Your task to perform on an android device: View the shopping cart on amazon.com. Search for "logitech g903" on amazon.com, select the first entry, add it to the cart, then select checkout. Image 0: 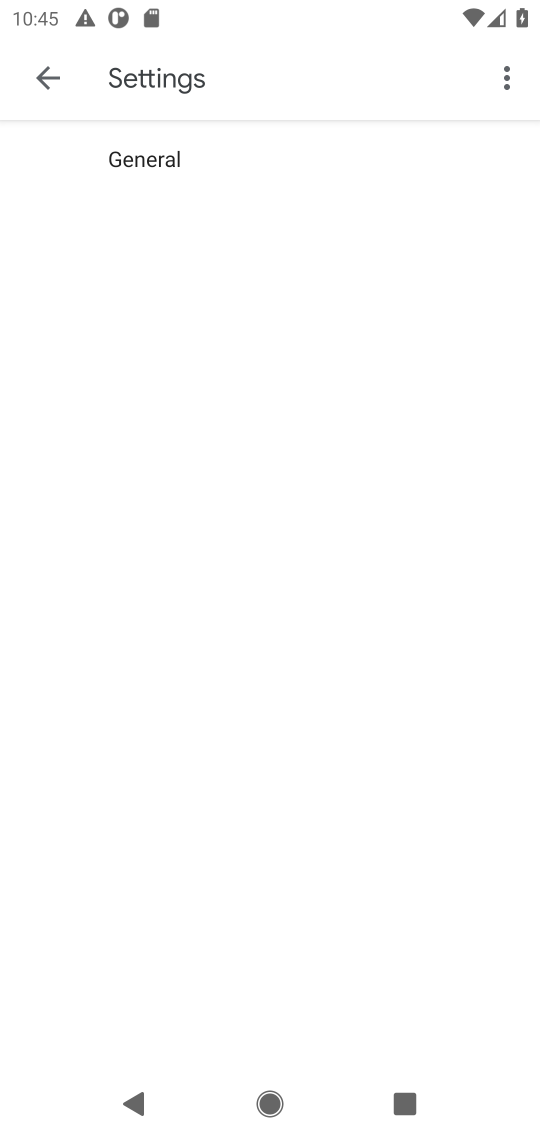
Step 0: press home button
Your task to perform on an android device: View the shopping cart on amazon.com. Search for "logitech g903" on amazon.com, select the first entry, add it to the cart, then select checkout. Image 1: 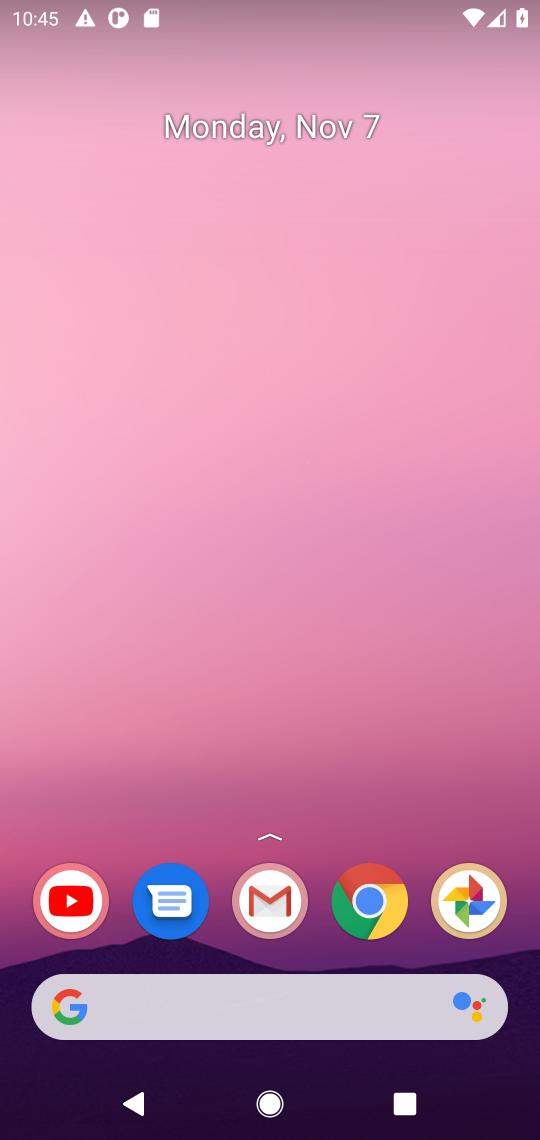
Step 1: click (367, 902)
Your task to perform on an android device: View the shopping cart on amazon.com. Search for "logitech g903" on amazon.com, select the first entry, add it to the cart, then select checkout. Image 2: 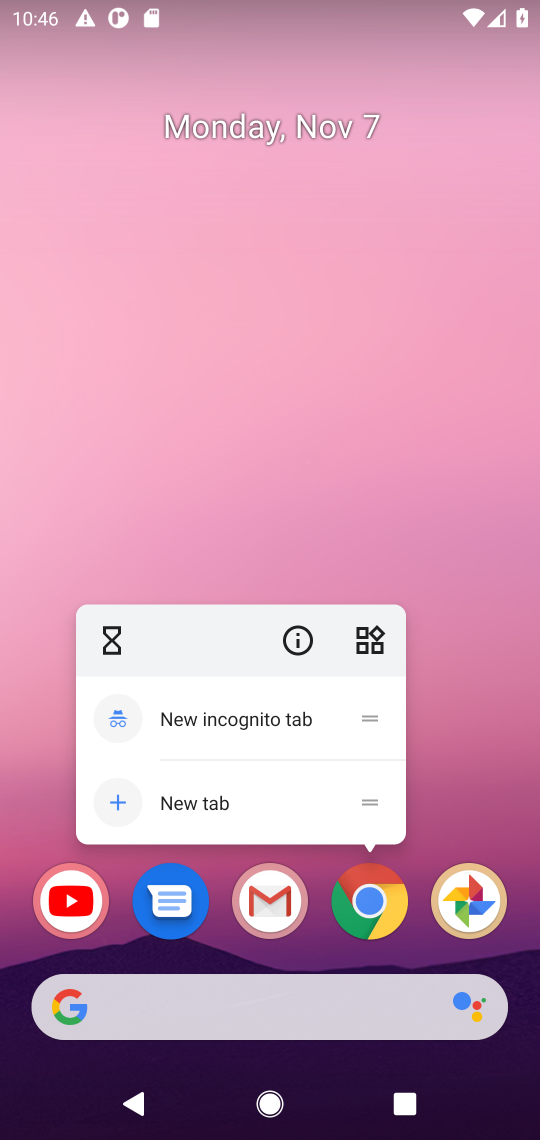
Step 2: click (367, 902)
Your task to perform on an android device: View the shopping cart on amazon.com. Search for "logitech g903" on amazon.com, select the first entry, add it to the cart, then select checkout. Image 3: 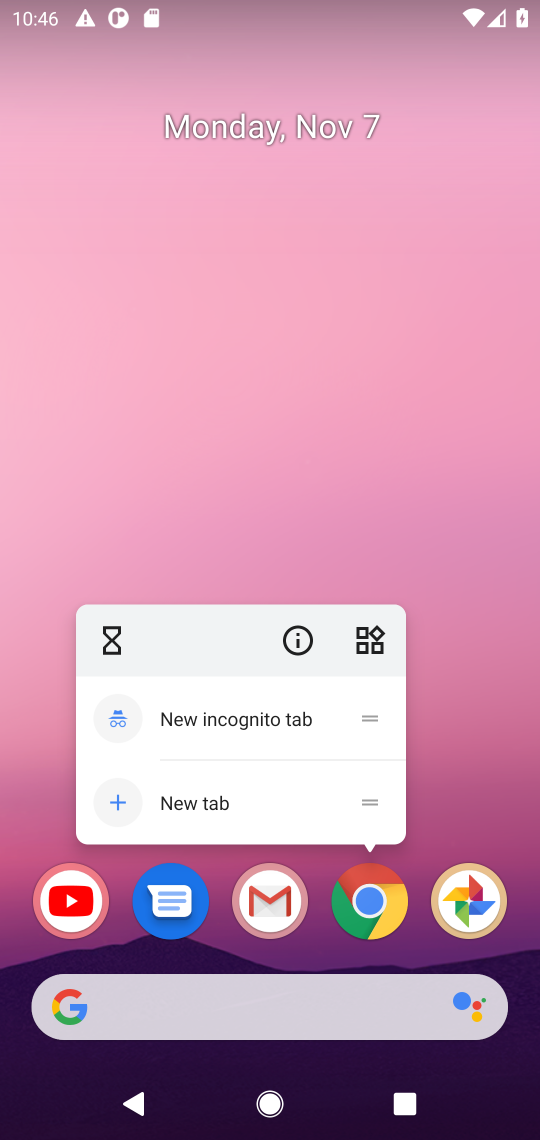
Step 3: click (367, 902)
Your task to perform on an android device: View the shopping cart on amazon.com. Search for "logitech g903" on amazon.com, select the first entry, add it to the cart, then select checkout. Image 4: 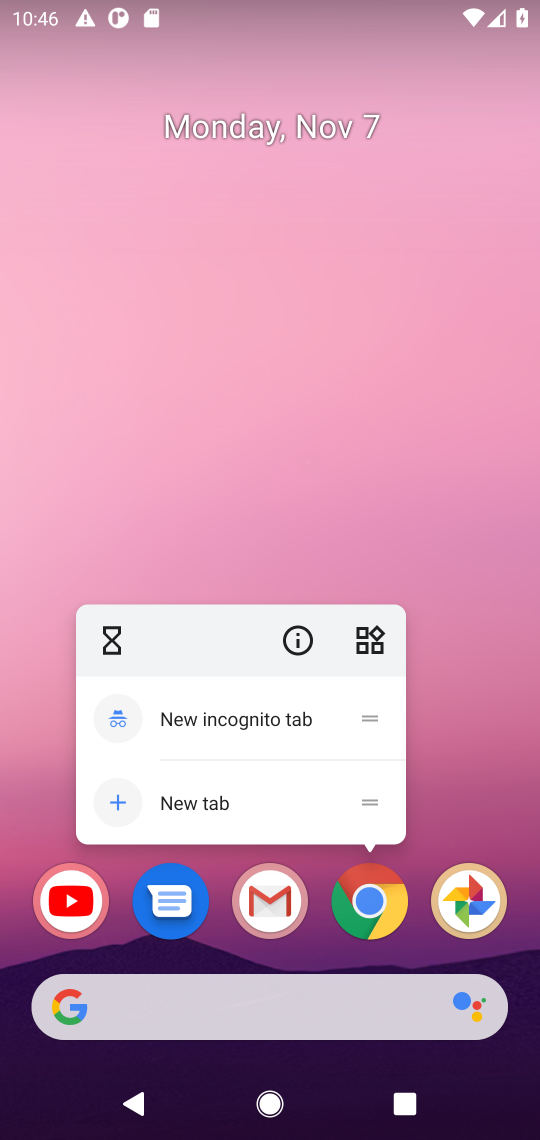
Step 4: click (367, 902)
Your task to perform on an android device: View the shopping cart on amazon.com. Search for "logitech g903" on amazon.com, select the first entry, add it to the cart, then select checkout. Image 5: 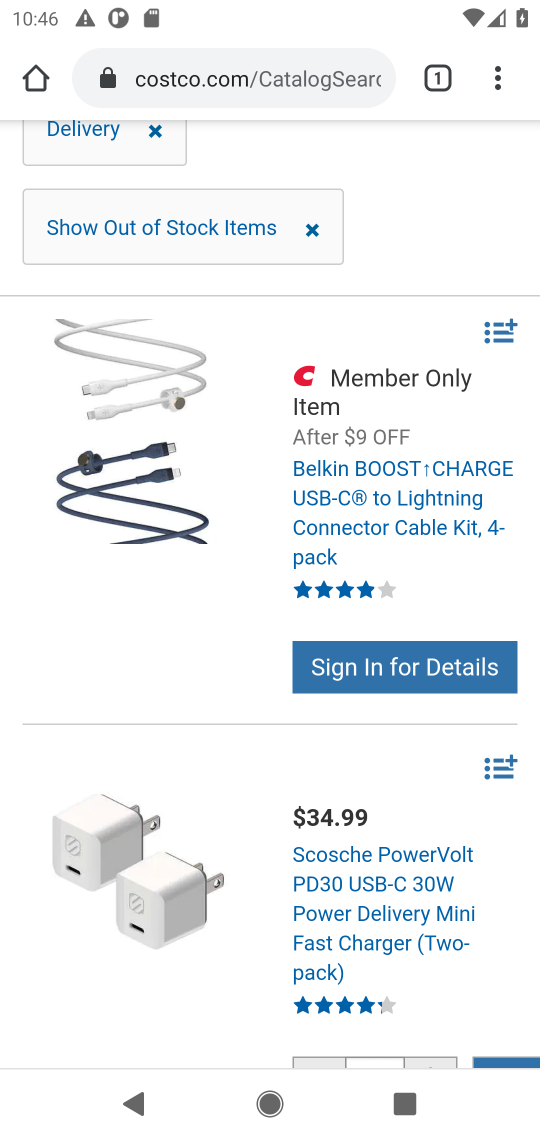
Step 5: click (237, 72)
Your task to perform on an android device: View the shopping cart on amazon.com. Search for "logitech g903" on amazon.com, select the first entry, add it to the cart, then select checkout. Image 6: 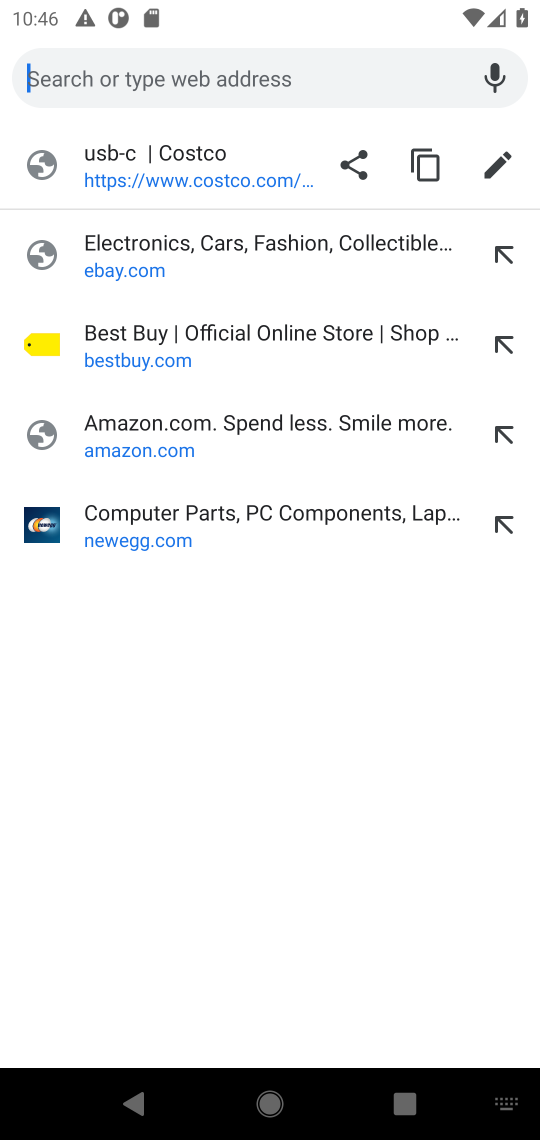
Step 6: click (267, 443)
Your task to perform on an android device: View the shopping cart on amazon.com. Search for "logitech g903" on amazon.com, select the first entry, add it to the cart, then select checkout. Image 7: 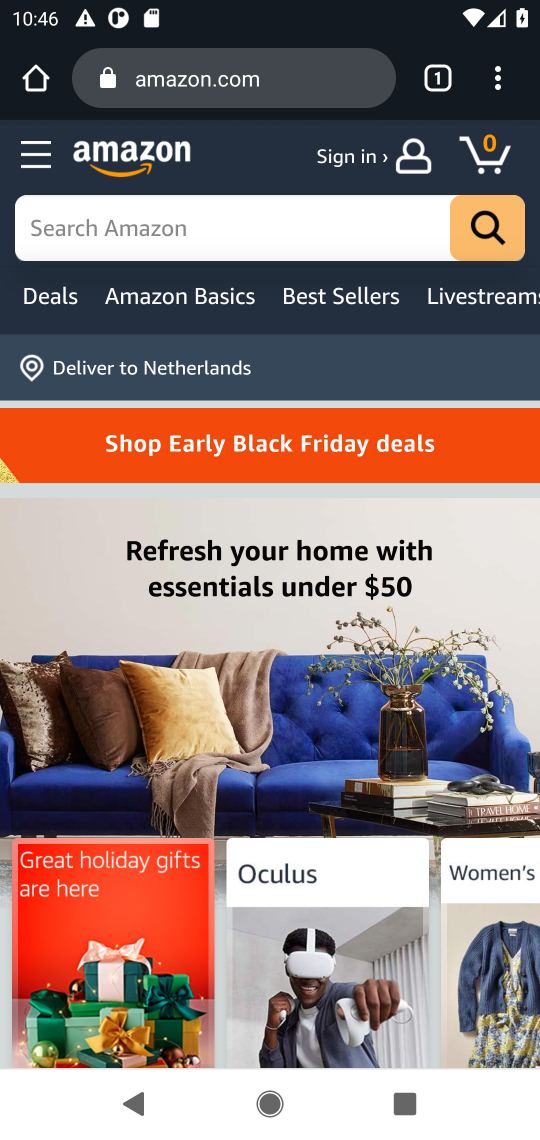
Step 7: click (234, 246)
Your task to perform on an android device: View the shopping cart on amazon.com. Search for "logitech g903" on amazon.com, select the first entry, add it to the cart, then select checkout. Image 8: 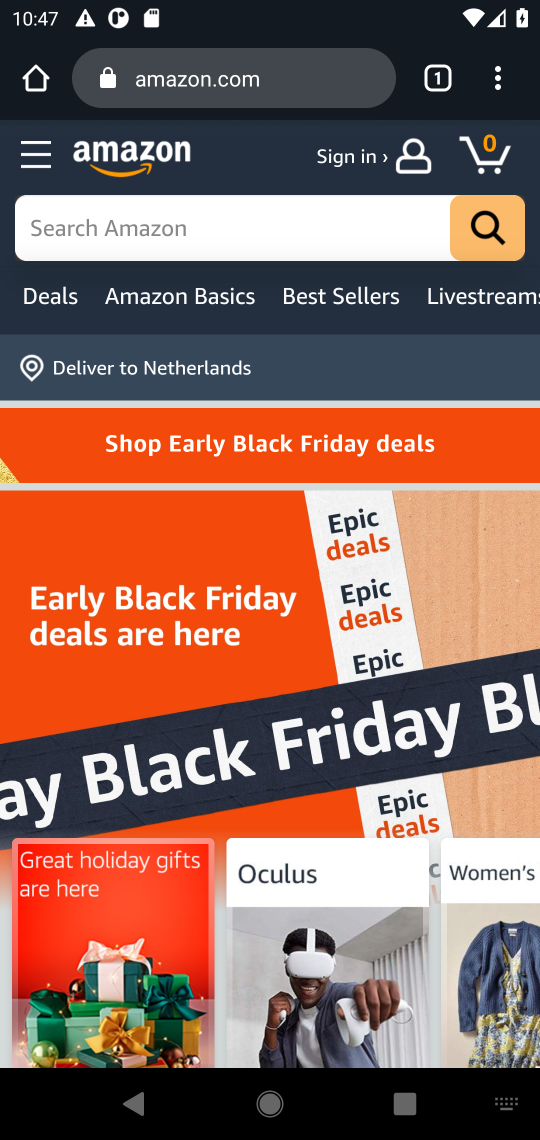
Step 8: type "logitecch g903"
Your task to perform on an android device: View the shopping cart on amazon.com. Search for "logitech g903" on amazon.com, select the first entry, add it to the cart, then select checkout. Image 9: 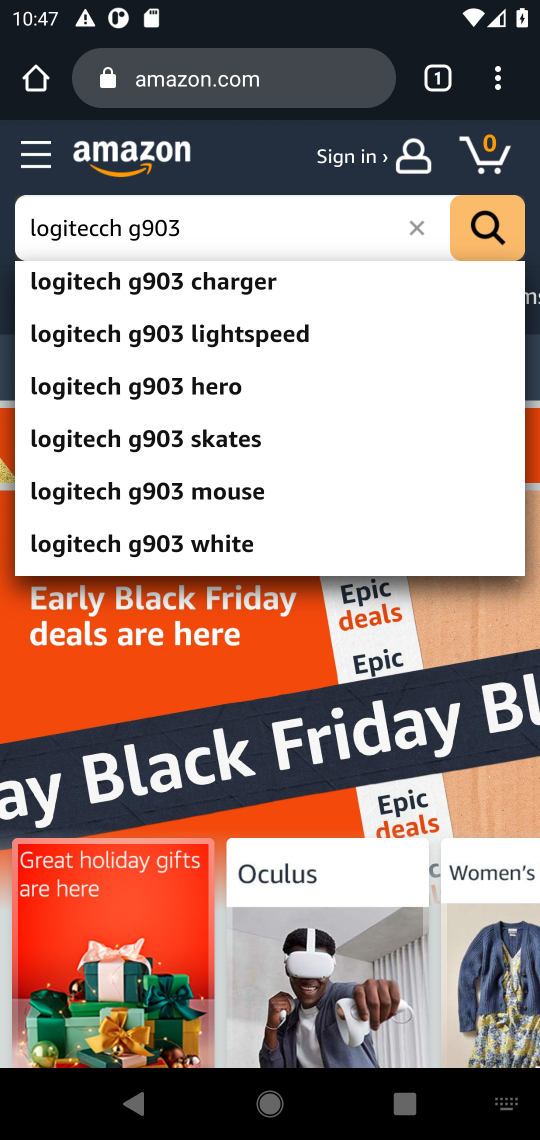
Step 9: press enter
Your task to perform on an android device: View the shopping cart on amazon.com. Search for "logitech g903" on amazon.com, select the first entry, add it to the cart, then select checkout. Image 10: 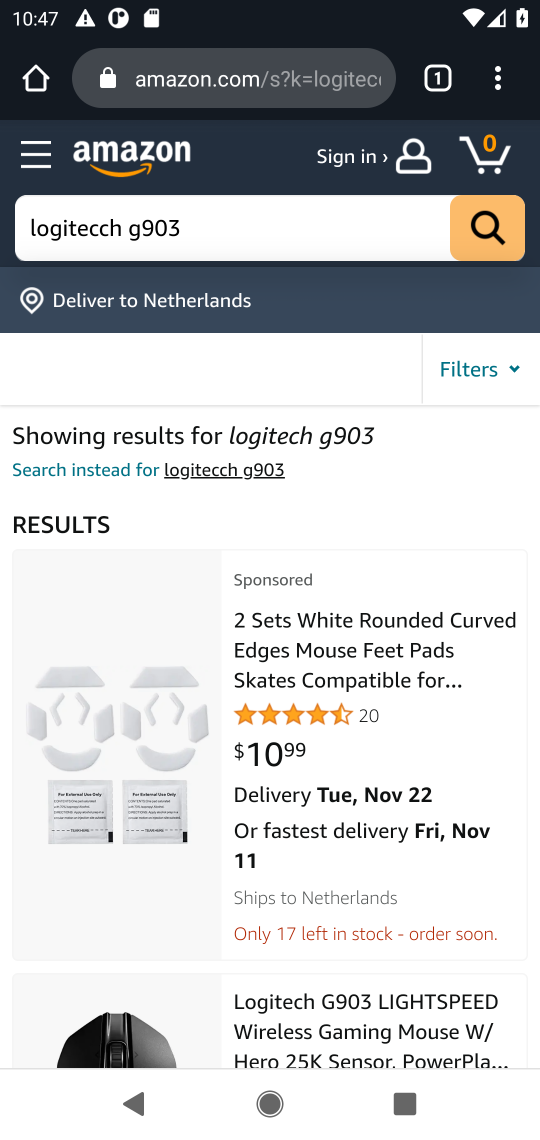
Step 10: drag from (277, 911) to (208, 714)
Your task to perform on an android device: View the shopping cart on amazon.com. Search for "logitech g903" on amazon.com, select the first entry, add it to the cart, then select checkout. Image 11: 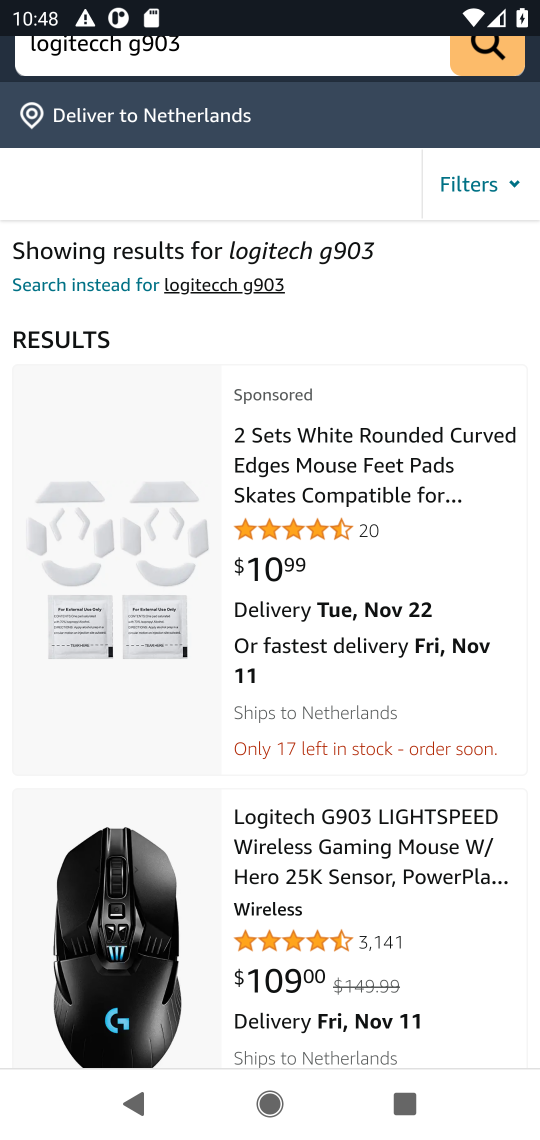
Step 11: click (182, 894)
Your task to perform on an android device: View the shopping cart on amazon.com. Search for "logitech g903" on amazon.com, select the first entry, add it to the cart, then select checkout. Image 12: 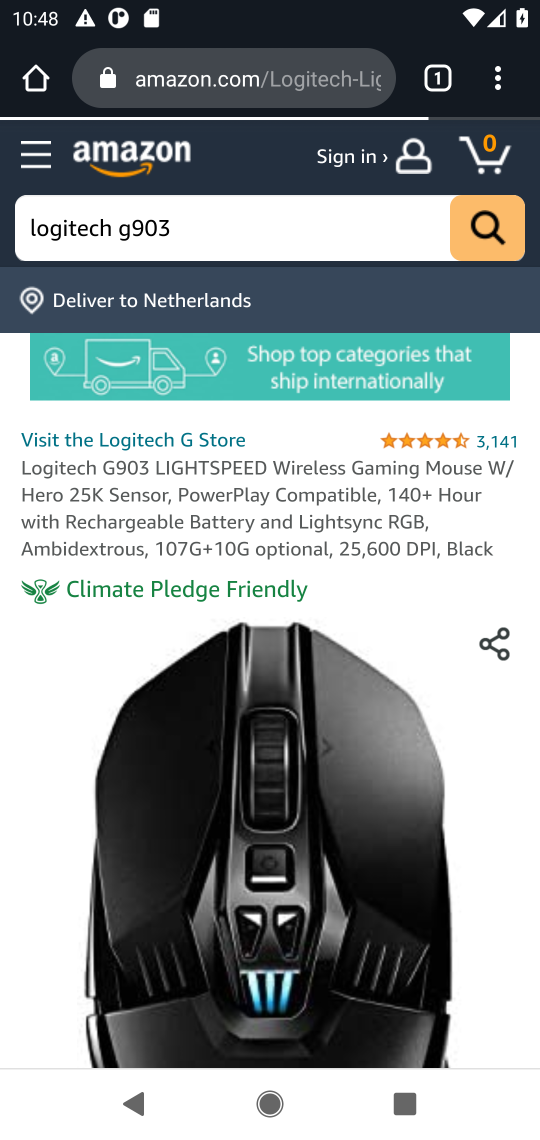
Step 12: drag from (317, 636) to (273, 456)
Your task to perform on an android device: View the shopping cart on amazon.com. Search for "logitech g903" on amazon.com, select the first entry, add it to the cart, then select checkout. Image 13: 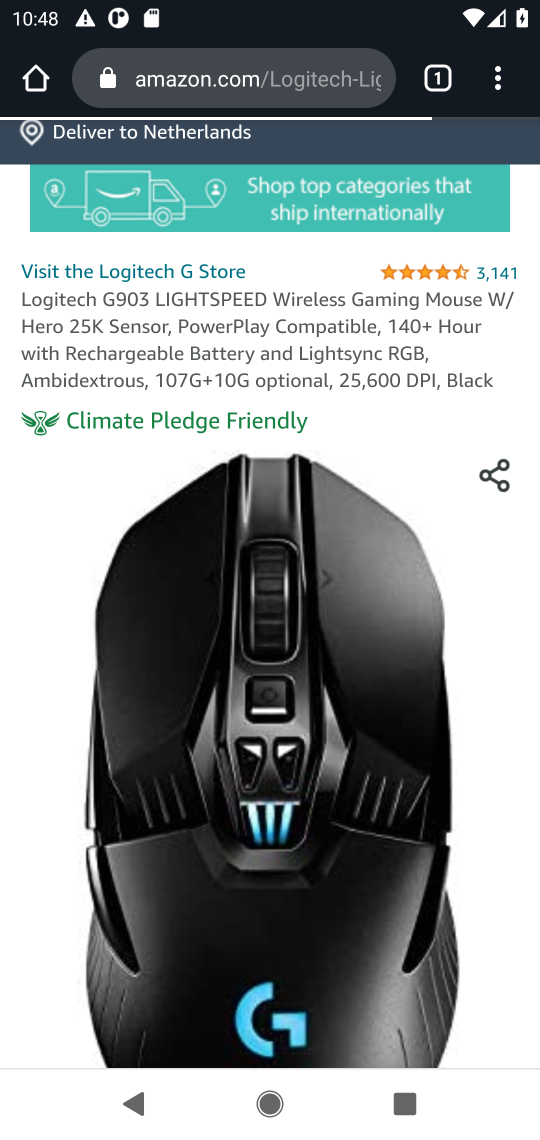
Step 13: drag from (380, 889) to (282, 450)
Your task to perform on an android device: View the shopping cart on amazon.com. Search for "logitech g903" on amazon.com, select the first entry, add it to the cart, then select checkout. Image 14: 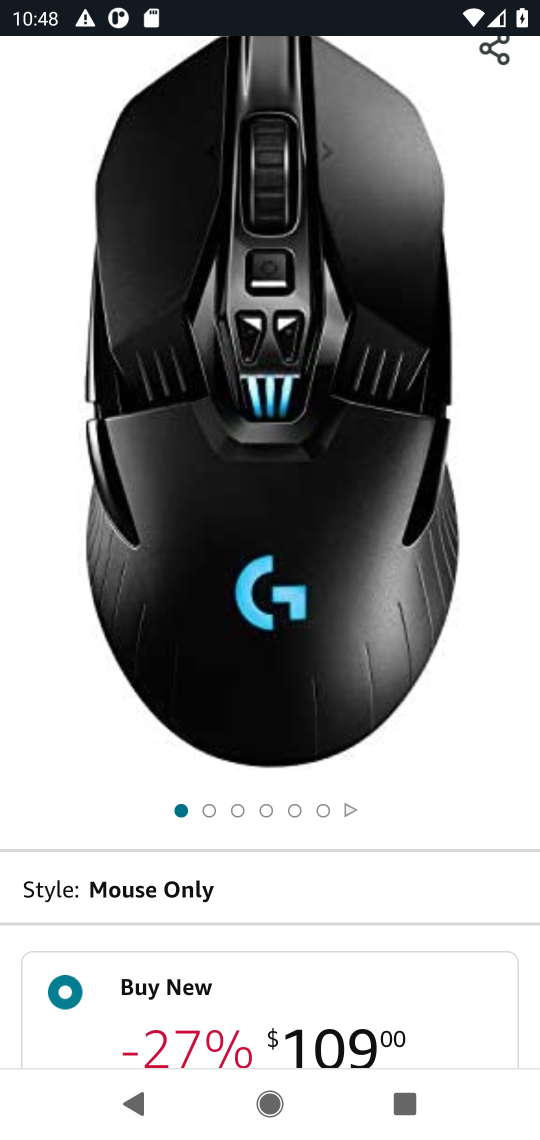
Step 14: drag from (285, 954) to (125, 272)
Your task to perform on an android device: View the shopping cart on amazon.com. Search for "logitech g903" on amazon.com, select the first entry, add it to the cart, then select checkout. Image 15: 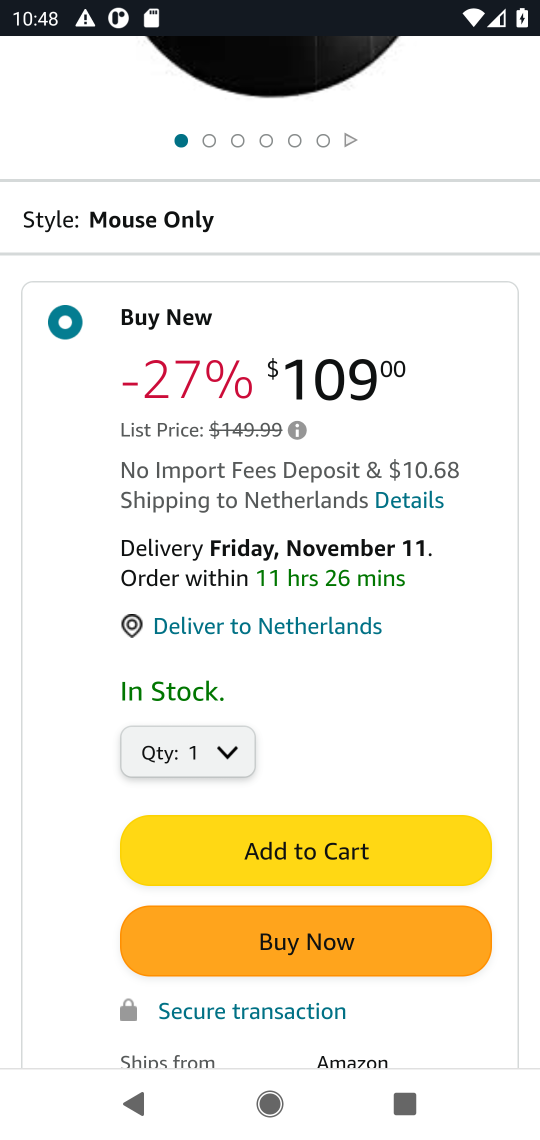
Step 15: click (275, 870)
Your task to perform on an android device: View the shopping cart on amazon.com. Search for "logitech g903" on amazon.com, select the first entry, add it to the cart, then select checkout. Image 16: 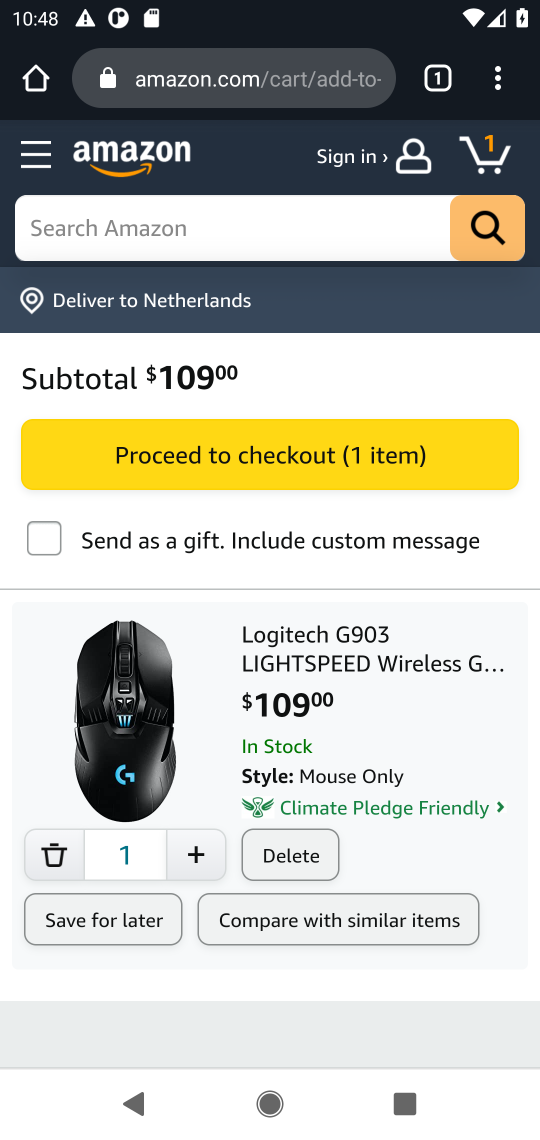
Step 16: click (257, 458)
Your task to perform on an android device: View the shopping cart on amazon.com. Search for "logitech g903" on amazon.com, select the first entry, add it to the cart, then select checkout. Image 17: 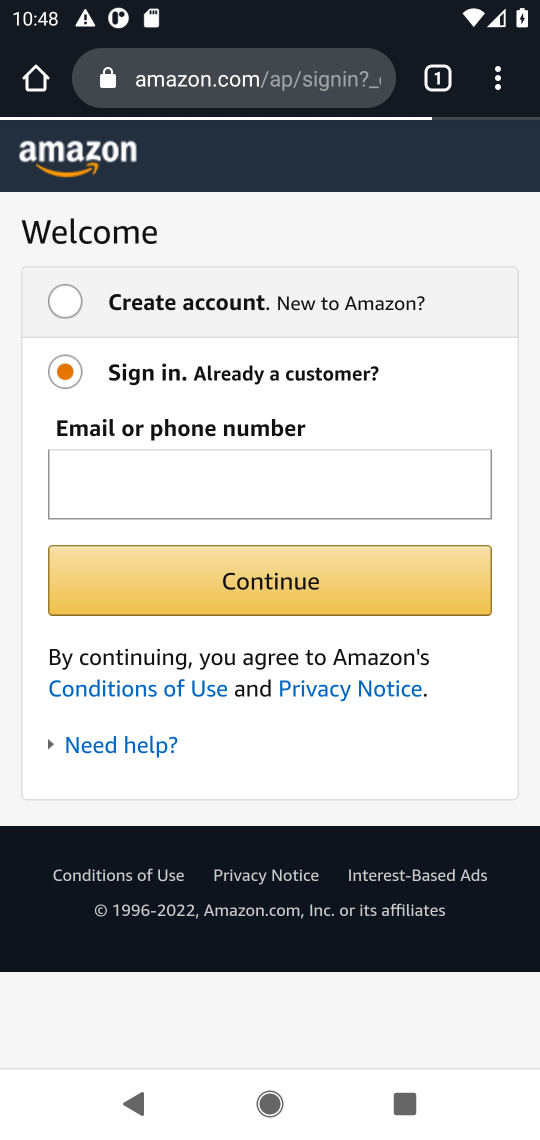
Step 17: task complete